Your task to perform on an android device: Open battery settings Image 0: 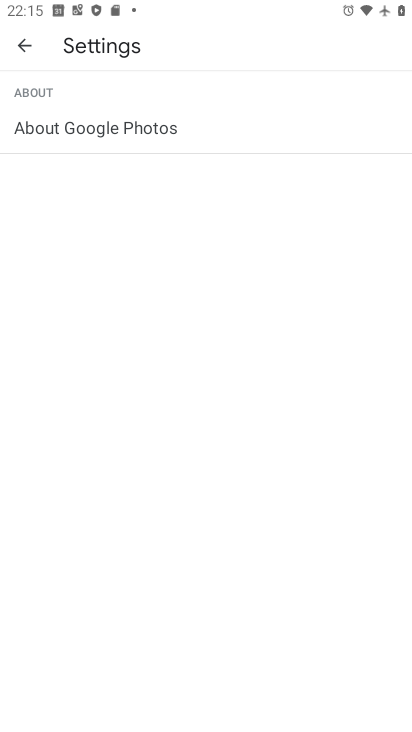
Step 0: press home button
Your task to perform on an android device: Open battery settings Image 1: 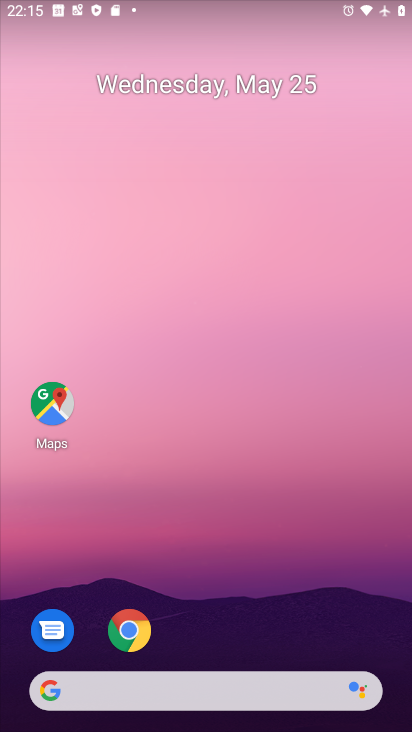
Step 1: drag from (205, 627) to (202, 266)
Your task to perform on an android device: Open battery settings Image 2: 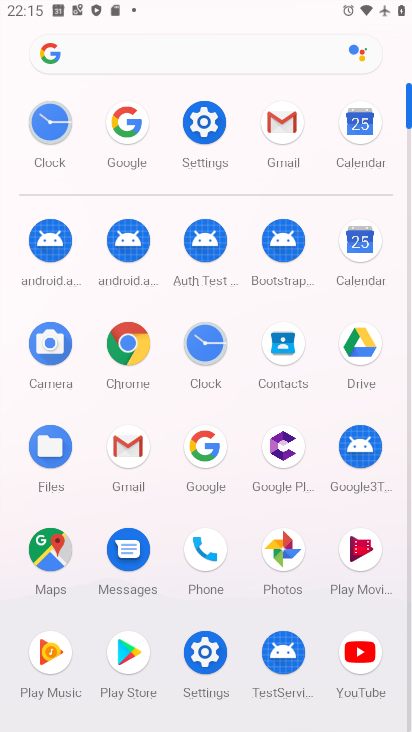
Step 2: click (193, 139)
Your task to perform on an android device: Open battery settings Image 3: 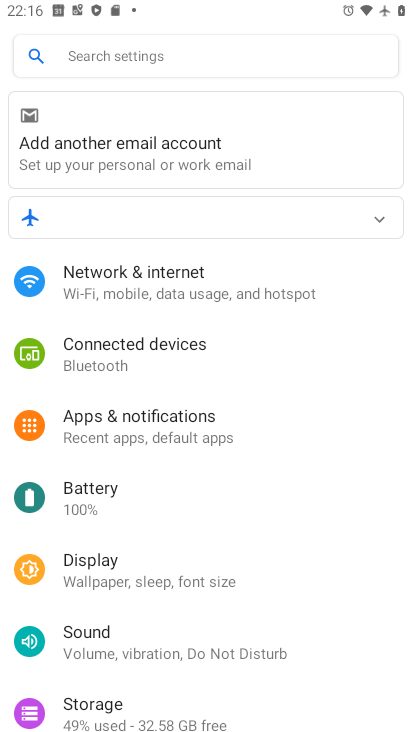
Step 3: click (223, 583)
Your task to perform on an android device: Open battery settings Image 4: 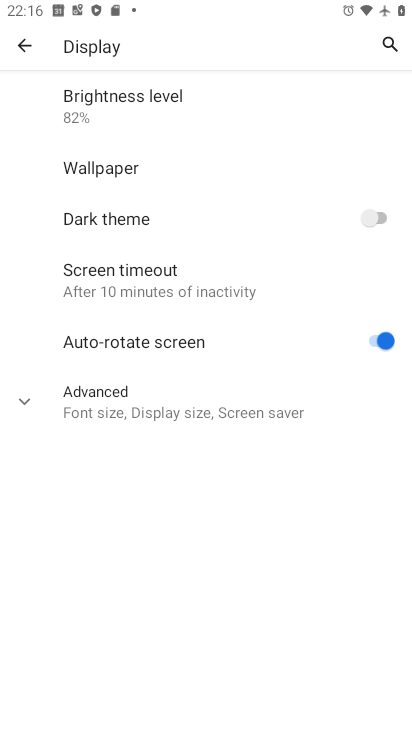
Step 4: press back button
Your task to perform on an android device: Open battery settings Image 5: 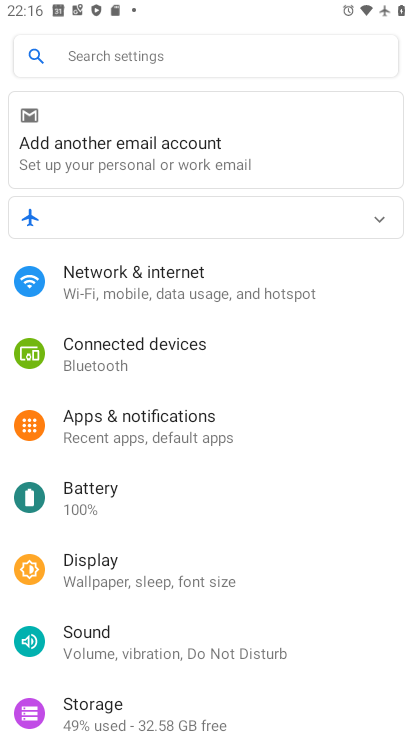
Step 5: click (122, 500)
Your task to perform on an android device: Open battery settings Image 6: 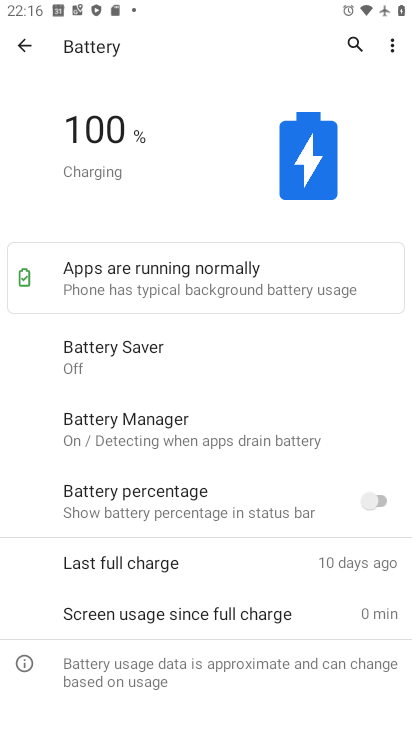
Step 6: task complete